Your task to perform on an android device: add a contact in the contacts app Image 0: 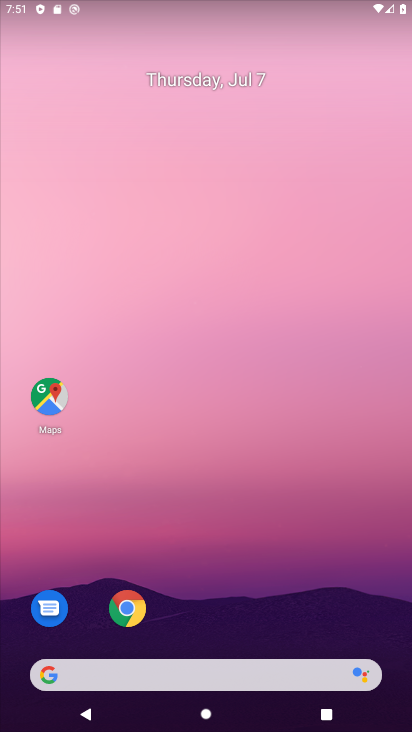
Step 0: drag from (362, 617) to (380, 150)
Your task to perform on an android device: add a contact in the contacts app Image 1: 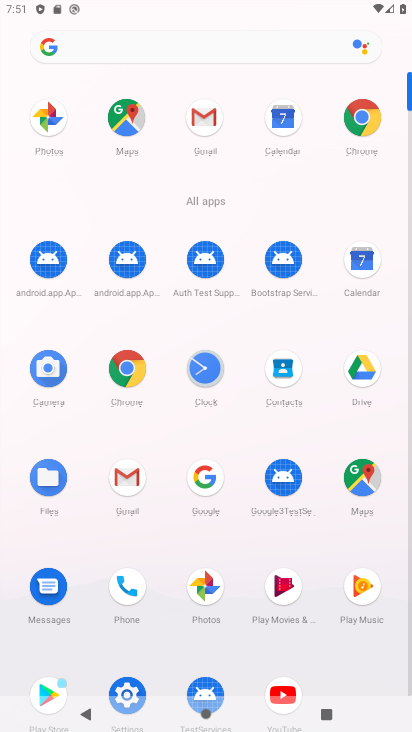
Step 1: click (284, 374)
Your task to perform on an android device: add a contact in the contacts app Image 2: 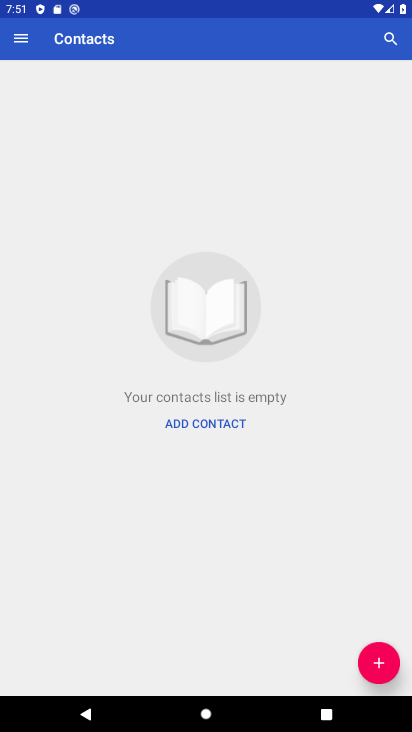
Step 2: click (386, 653)
Your task to perform on an android device: add a contact in the contacts app Image 3: 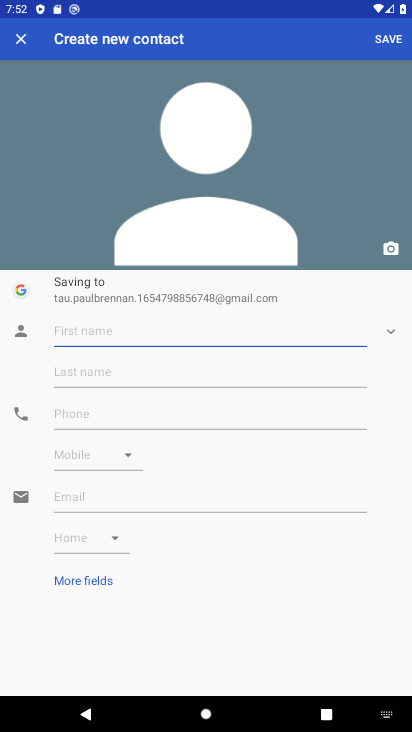
Step 3: type "fav"
Your task to perform on an android device: add a contact in the contacts app Image 4: 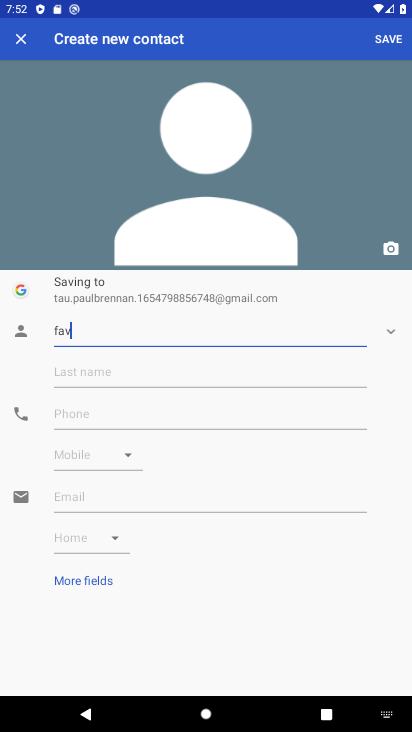
Step 4: click (306, 415)
Your task to perform on an android device: add a contact in the contacts app Image 5: 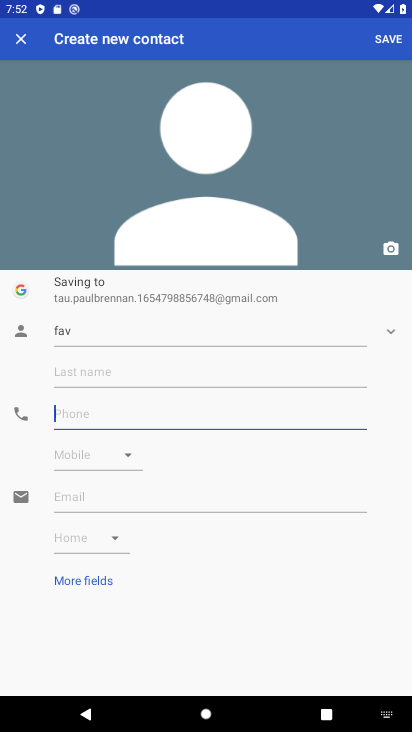
Step 5: type "1234567890"
Your task to perform on an android device: add a contact in the contacts app Image 6: 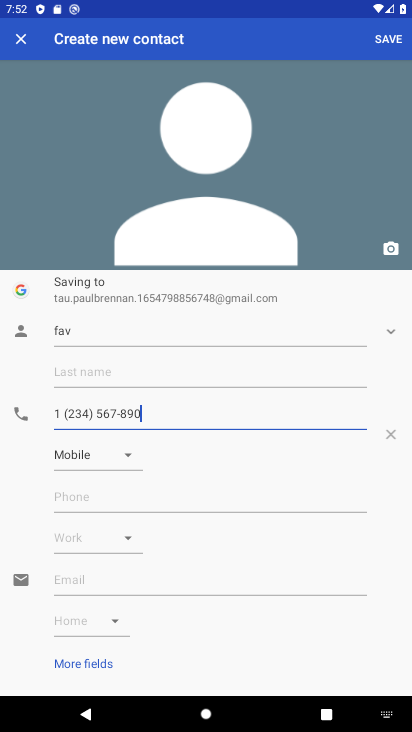
Step 6: click (384, 39)
Your task to perform on an android device: add a contact in the contacts app Image 7: 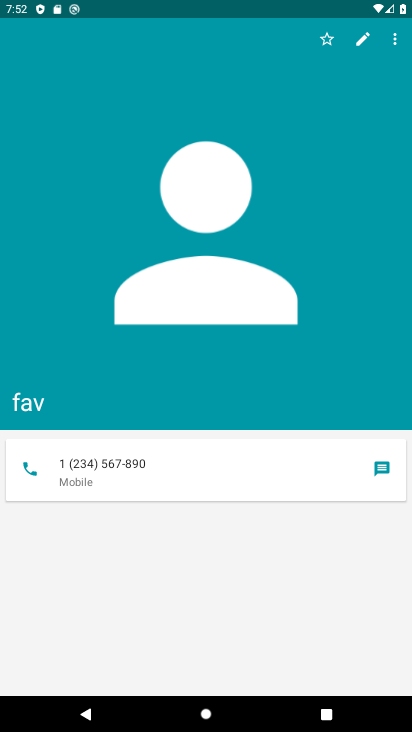
Step 7: task complete